Your task to perform on an android device: change keyboard looks Image 0: 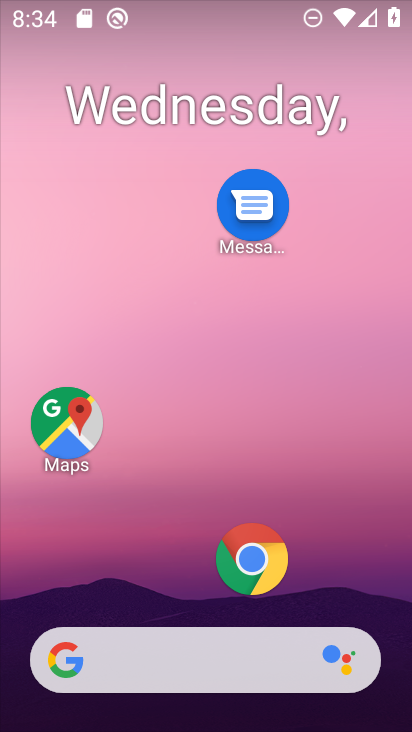
Step 0: drag from (146, 657) to (184, 203)
Your task to perform on an android device: change keyboard looks Image 1: 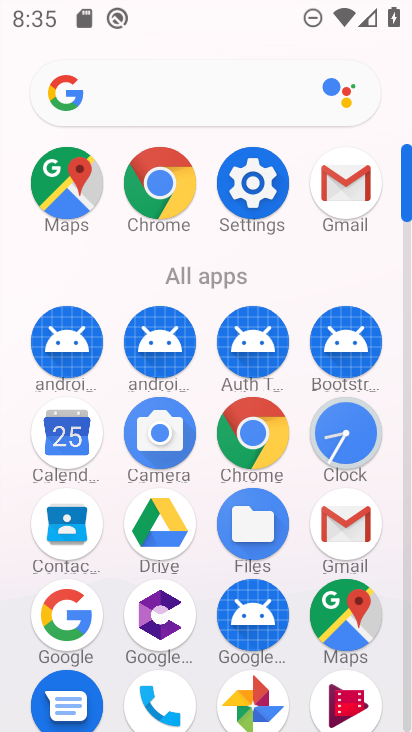
Step 1: click (270, 214)
Your task to perform on an android device: change keyboard looks Image 2: 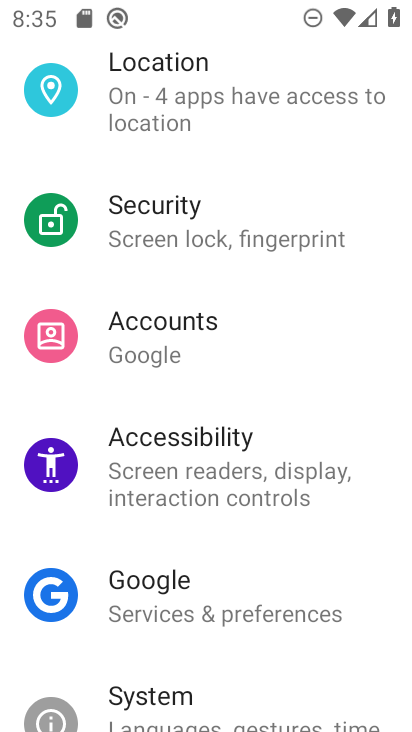
Step 2: drag from (249, 526) to (261, 317)
Your task to perform on an android device: change keyboard looks Image 3: 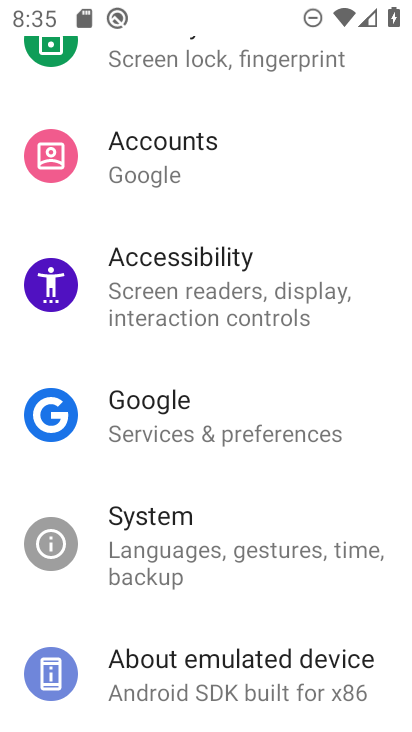
Step 3: click (250, 543)
Your task to perform on an android device: change keyboard looks Image 4: 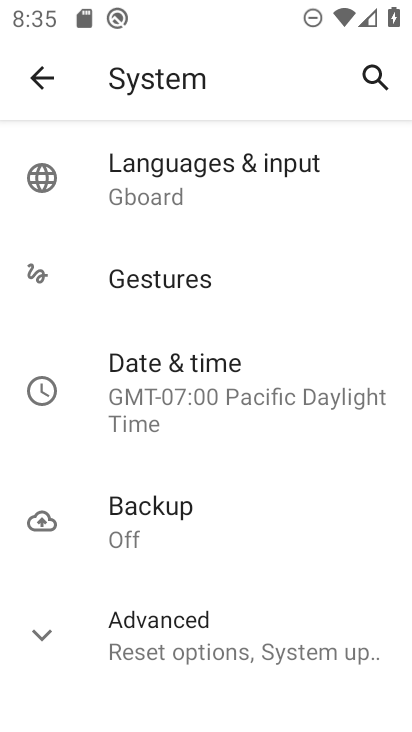
Step 4: click (199, 202)
Your task to perform on an android device: change keyboard looks Image 5: 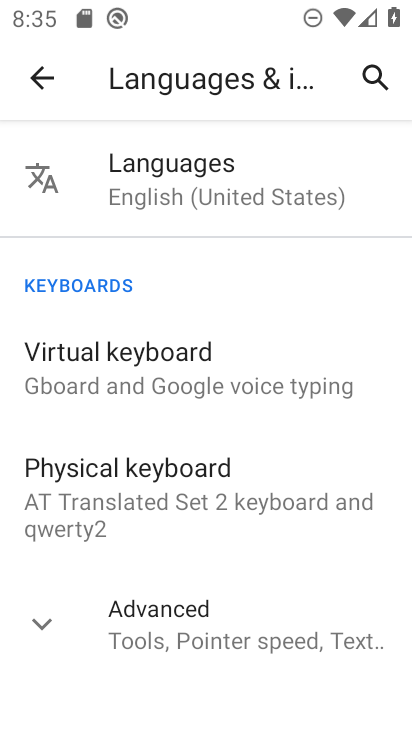
Step 5: click (171, 360)
Your task to perform on an android device: change keyboard looks Image 6: 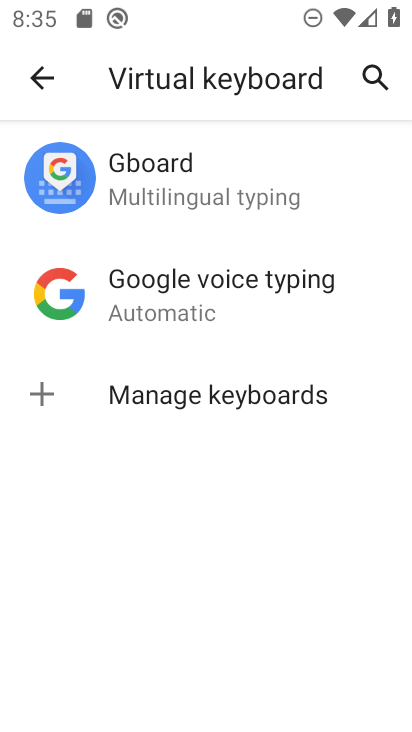
Step 6: click (167, 204)
Your task to perform on an android device: change keyboard looks Image 7: 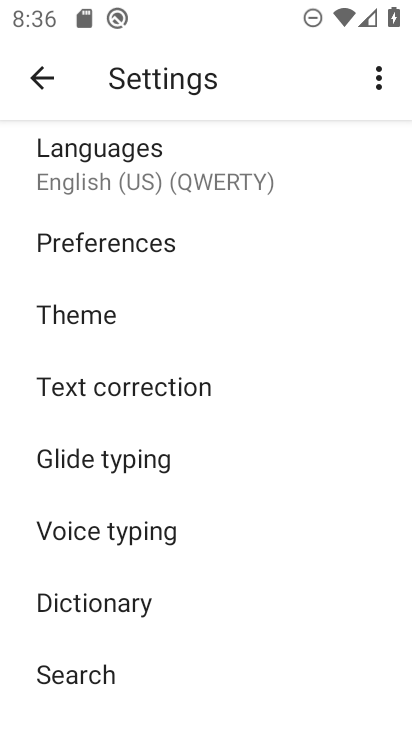
Step 7: click (142, 311)
Your task to perform on an android device: change keyboard looks Image 8: 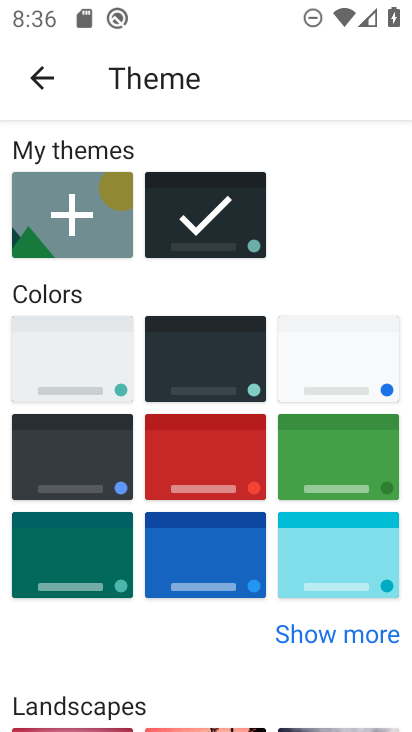
Step 8: click (69, 370)
Your task to perform on an android device: change keyboard looks Image 9: 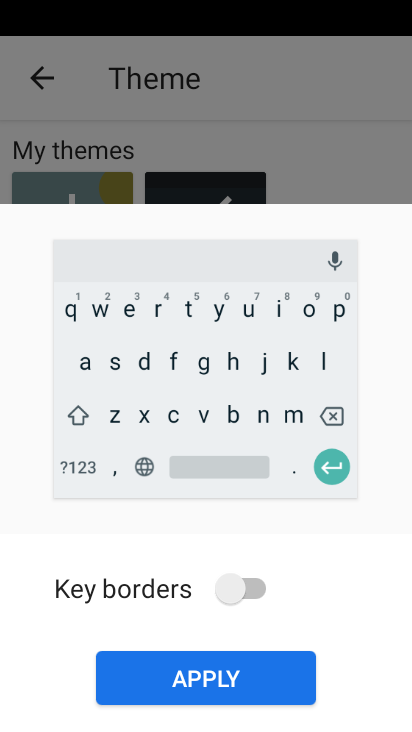
Step 9: click (143, 685)
Your task to perform on an android device: change keyboard looks Image 10: 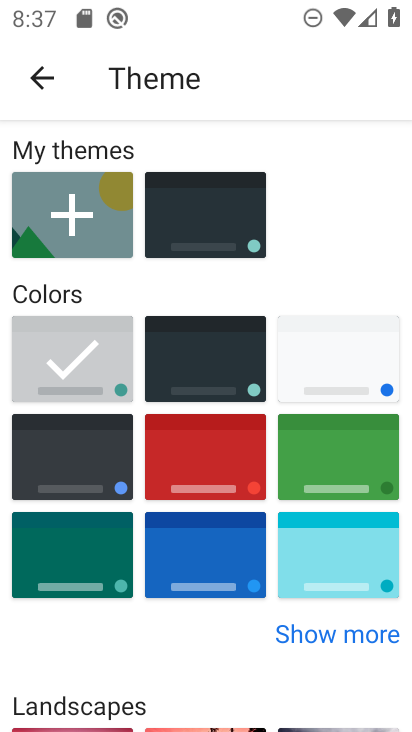
Step 10: click (331, 394)
Your task to perform on an android device: change keyboard looks Image 11: 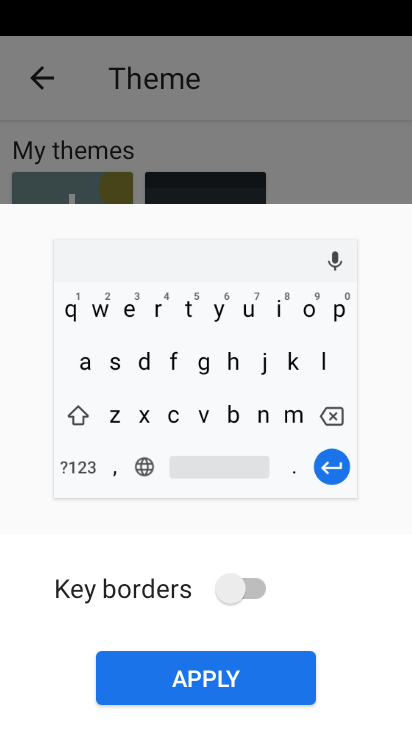
Step 11: task complete